Your task to perform on an android device: Go to Android settings Image 0: 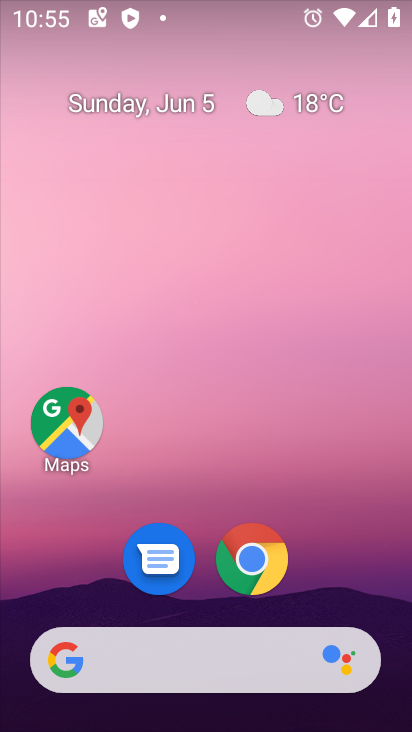
Step 0: drag from (377, 627) to (284, 49)
Your task to perform on an android device: Go to Android settings Image 1: 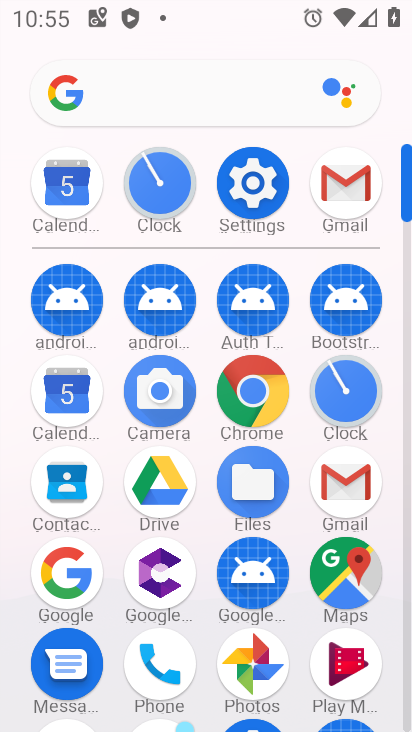
Step 1: click (240, 187)
Your task to perform on an android device: Go to Android settings Image 2: 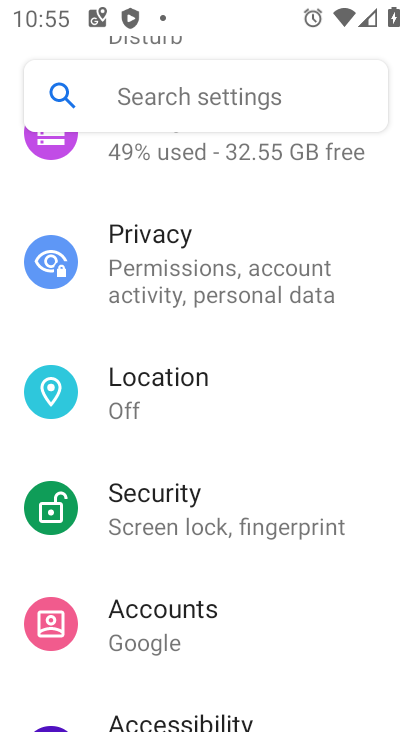
Step 2: task complete